Your task to perform on an android device: When is my next appointment? Image 0: 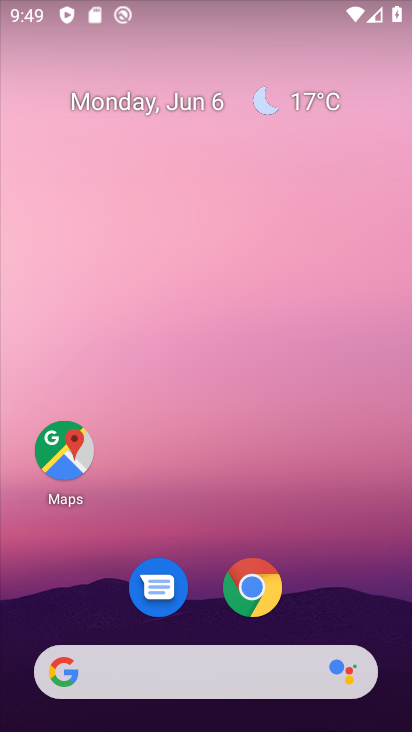
Step 0: drag from (334, 623) to (152, 233)
Your task to perform on an android device: When is my next appointment? Image 1: 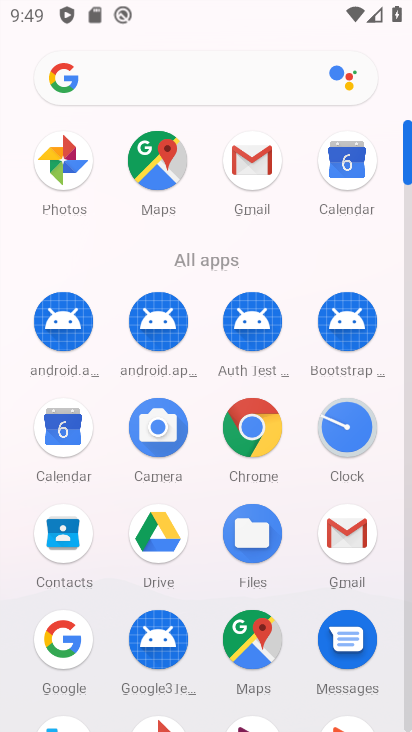
Step 1: click (56, 461)
Your task to perform on an android device: When is my next appointment? Image 2: 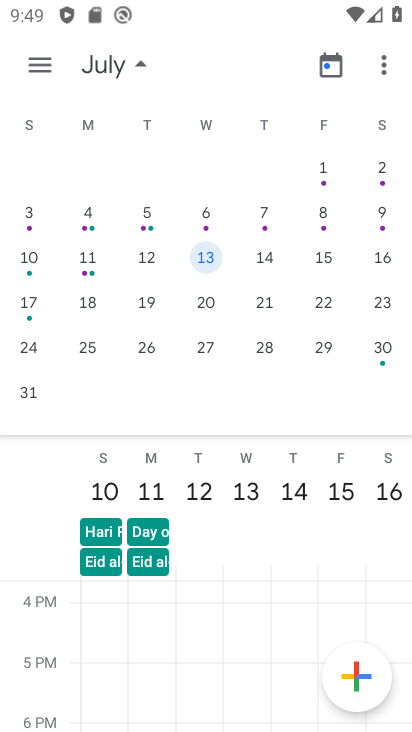
Step 2: click (123, 66)
Your task to perform on an android device: When is my next appointment? Image 3: 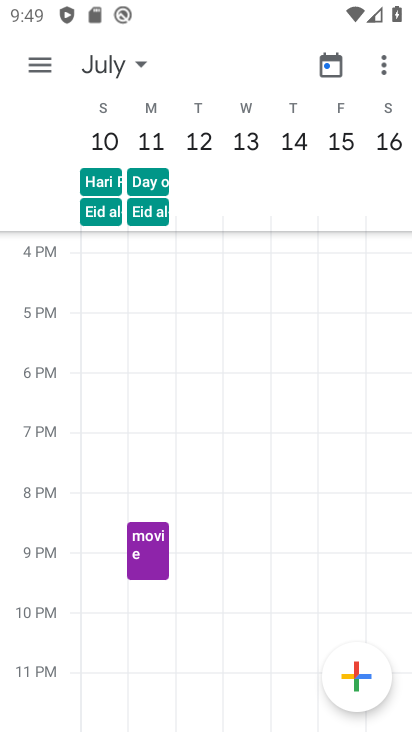
Step 3: click (123, 66)
Your task to perform on an android device: When is my next appointment? Image 4: 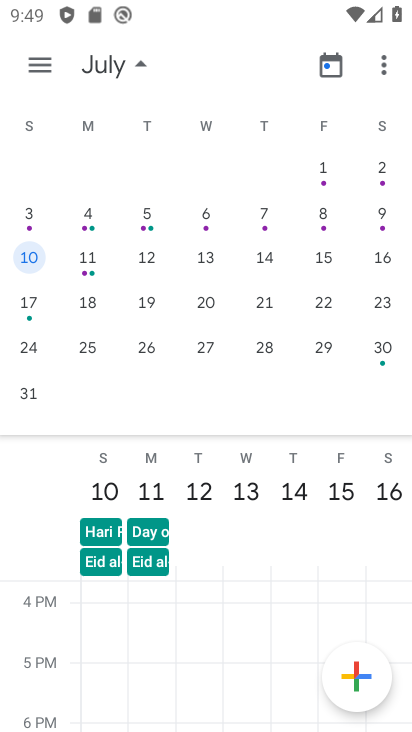
Step 4: drag from (66, 298) to (410, 217)
Your task to perform on an android device: When is my next appointment? Image 5: 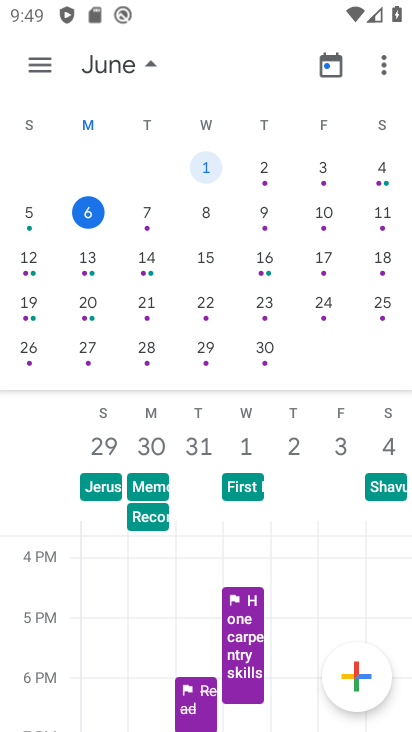
Step 5: click (143, 227)
Your task to perform on an android device: When is my next appointment? Image 6: 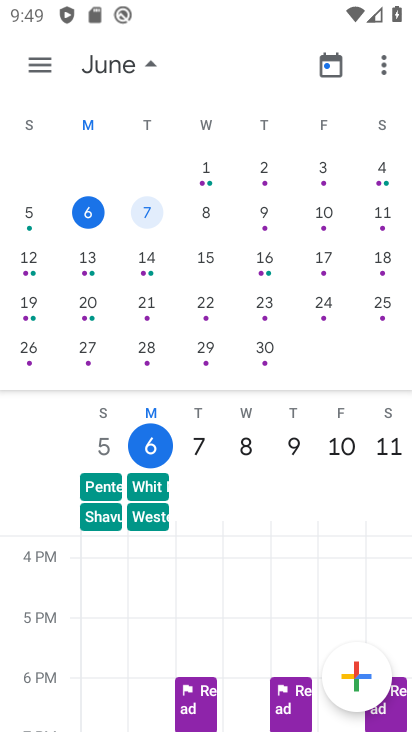
Step 6: click (30, 75)
Your task to perform on an android device: When is my next appointment? Image 7: 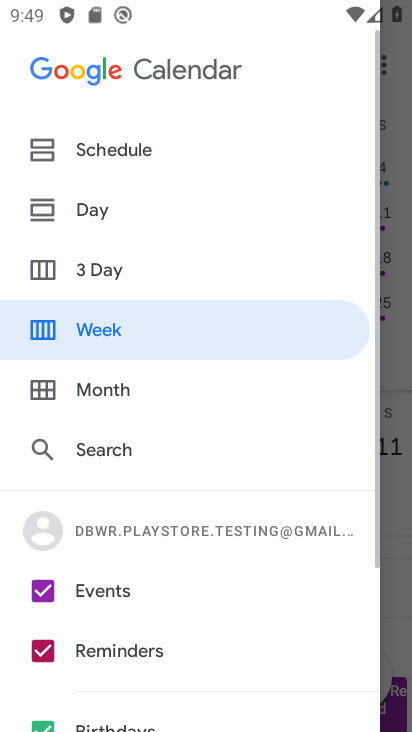
Step 7: click (76, 131)
Your task to perform on an android device: When is my next appointment? Image 8: 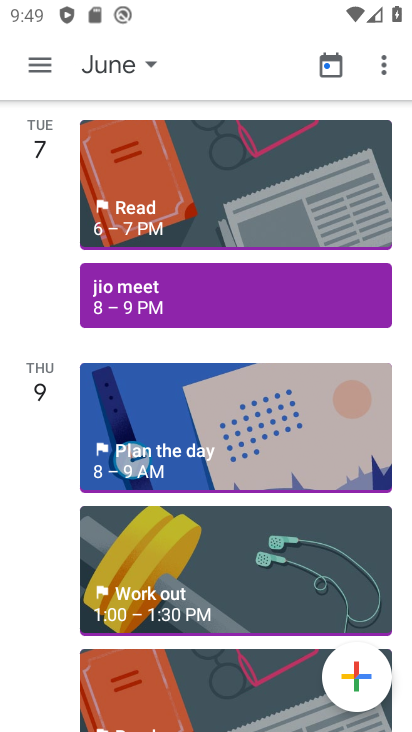
Step 8: task complete